Your task to perform on an android device: change keyboard looks Image 0: 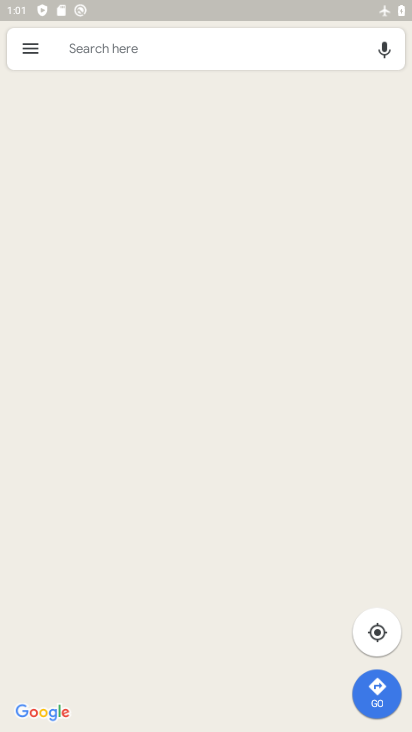
Step 0: press home button
Your task to perform on an android device: change keyboard looks Image 1: 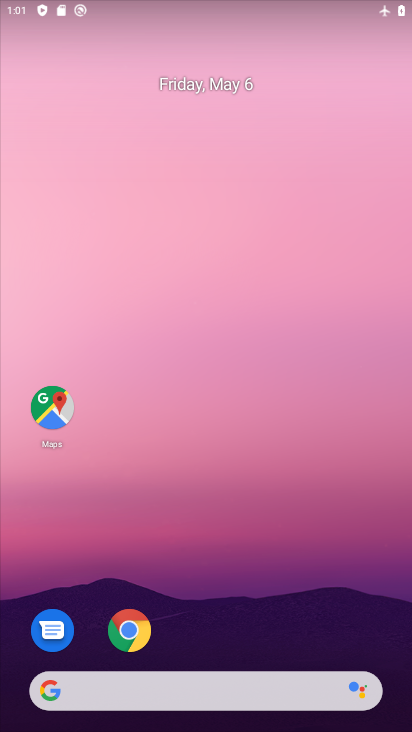
Step 1: drag from (242, 578) to (226, 16)
Your task to perform on an android device: change keyboard looks Image 2: 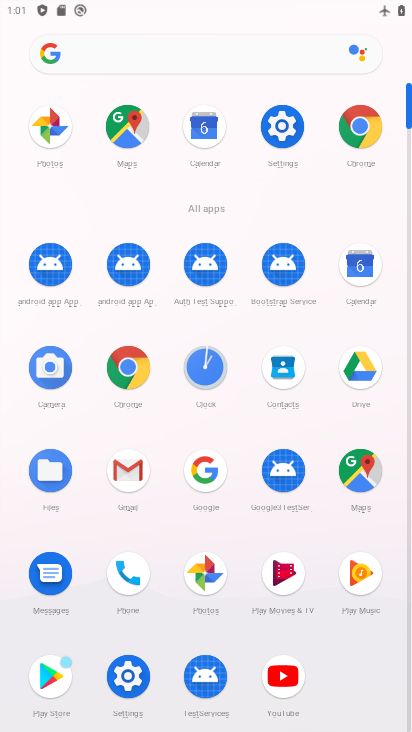
Step 2: click (108, 676)
Your task to perform on an android device: change keyboard looks Image 3: 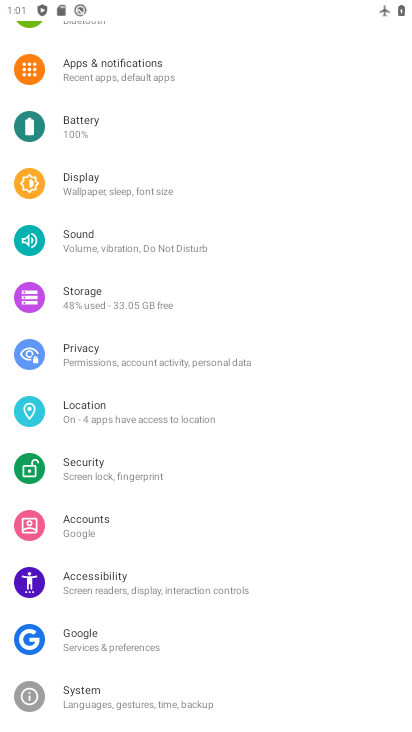
Step 3: drag from (125, 701) to (145, 521)
Your task to perform on an android device: change keyboard looks Image 4: 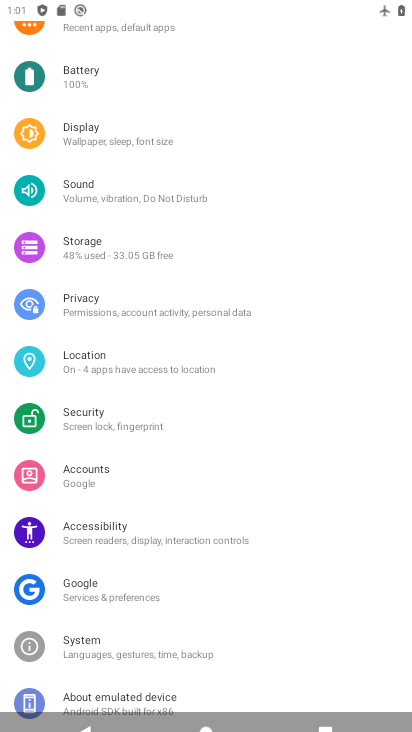
Step 4: click (123, 651)
Your task to perform on an android device: change keyboard looks Image 5: 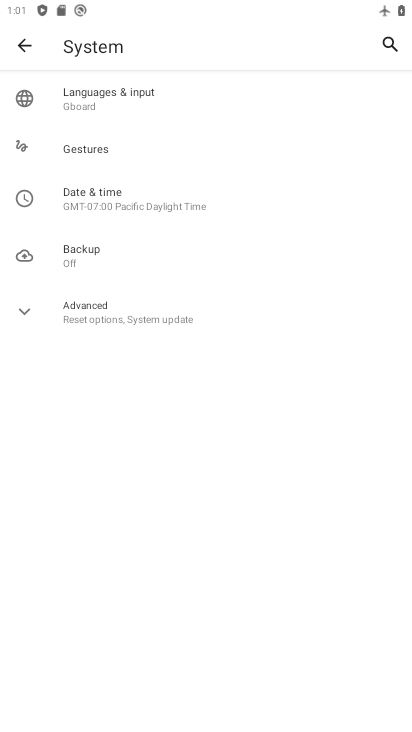
Step 5: click (170, 96)
Your task to perform on an android device: change keyboard looks Image 6: 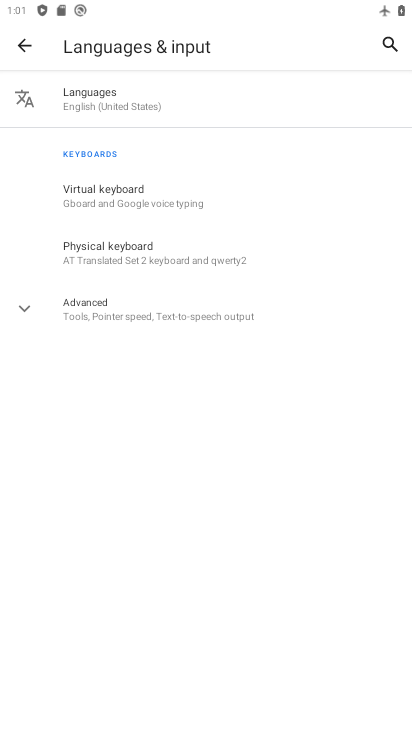
Step 6: click (133, 203)
Your task to perform on an android device: change keyboard looks Image 7: 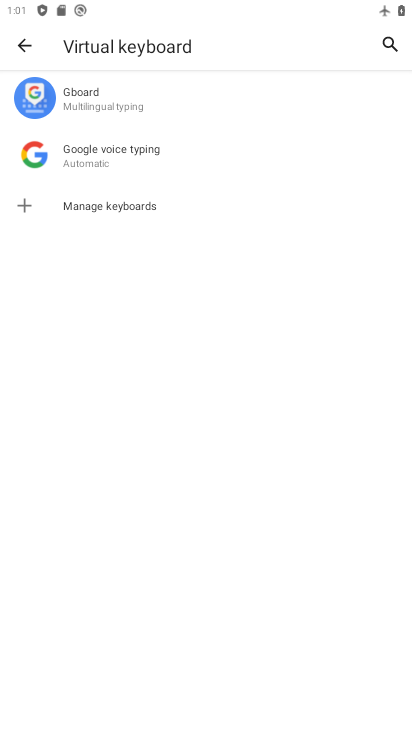
Step 7: click (83, 118)
Your task to perform on an android device: change keyboard looks Image 8: 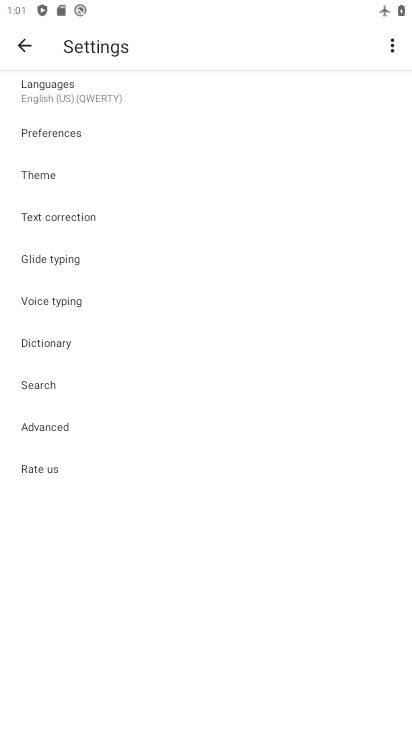
Step 8: click (76, 178)
Your task to perform on an android device: change keyboard looks Image 9: 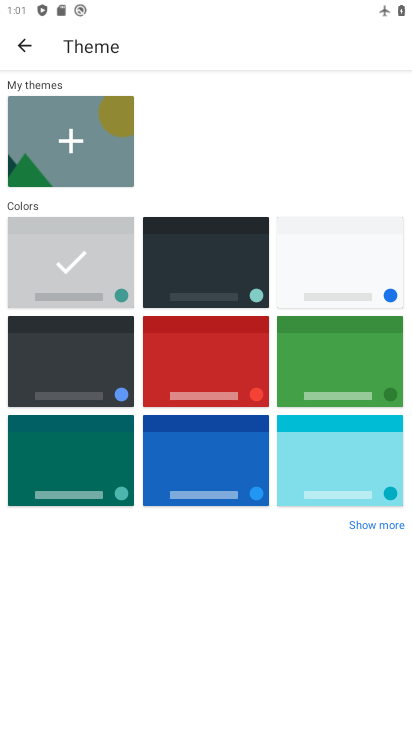
Step 9: click (249, 458)
Your task to perform on an android device: change keyboard looks Image 10: 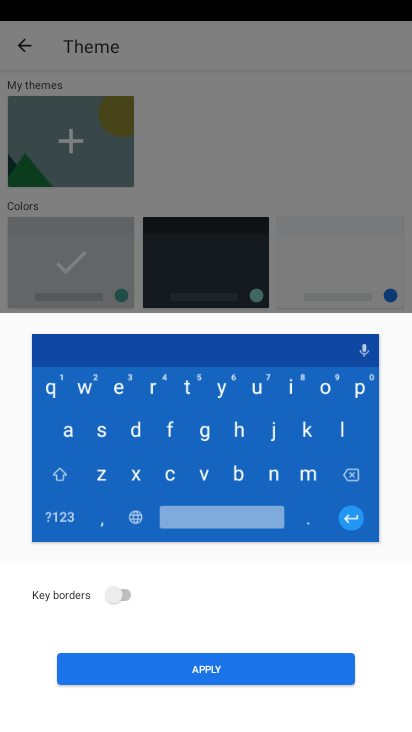
Step 10: click (317, 660)
Your task to perform on an android device: change keyboard looks Image 11: 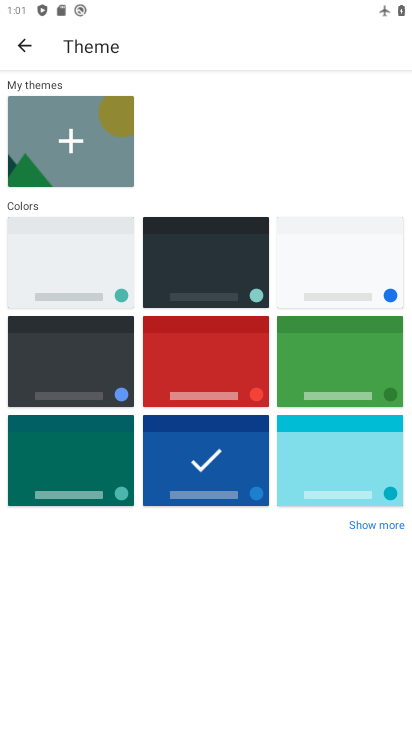
Step 11: task complete